Your task to perform on an android device: Open calendar and show me the third week of next month Image 0: 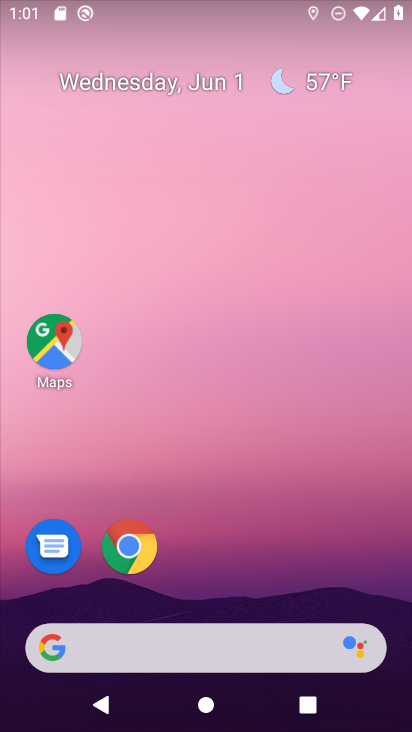
Step 0: click (49, 367)
Your task to perform on an android device: Open calendar and show me the third week of next month Image 1: 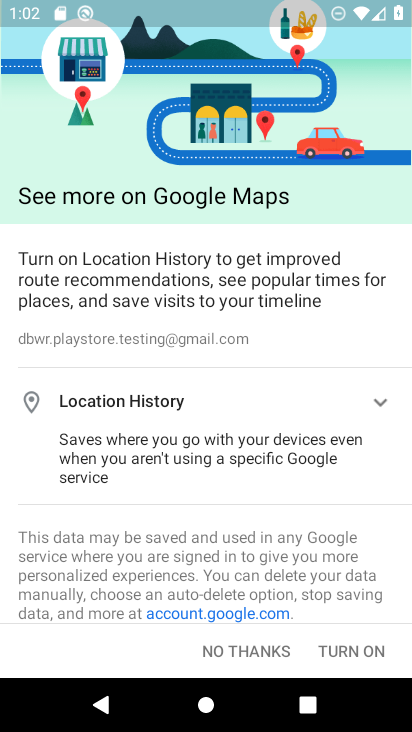
Step 1: click (349, 640)
Your task to perform on an android device: Open calendar and show me the third week of next month Image 2: 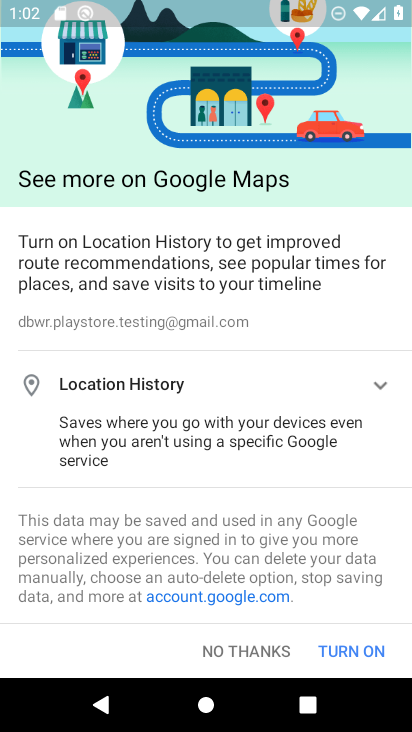
Step 2: press home button
Your task to perform on an android device: Open calendar and show me the third week of next month Image 3: 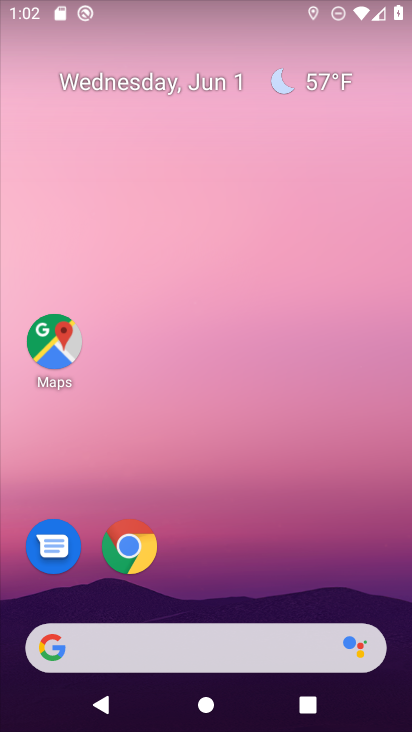
Step 3: drag from (200, 612) to (156, 78)
Your task to perform on an android device: Open calendar and show me the third week of next month Image 4: 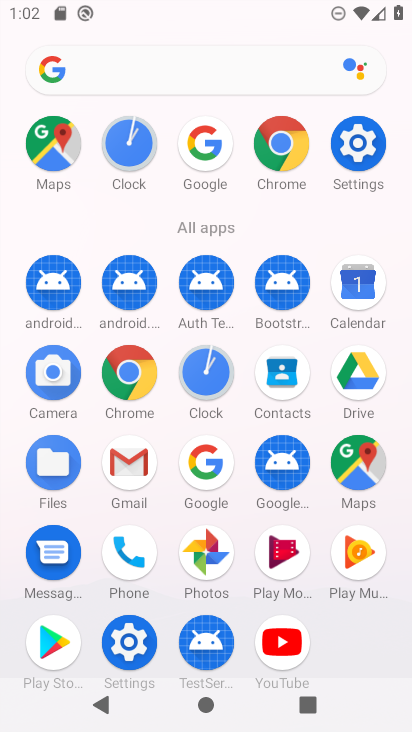
Step 4: click (359, 287)
Your task to perform on an android device: Open calendar and show me the third week of next month Image 5: 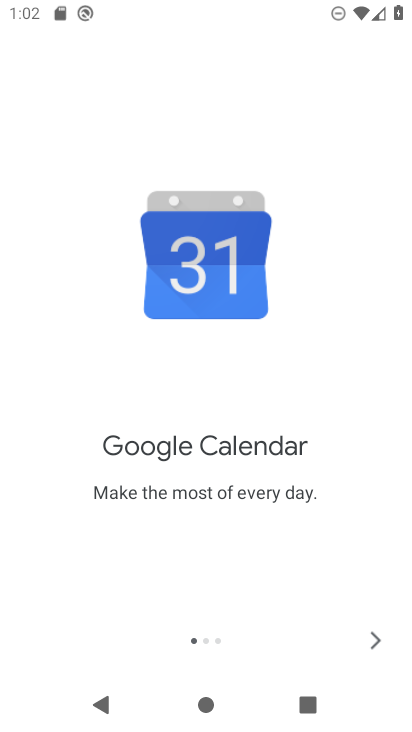
Step 5: click (370, 644)
Your task to perform on an android device: Open calendar and show me the third week of next month Image 6: 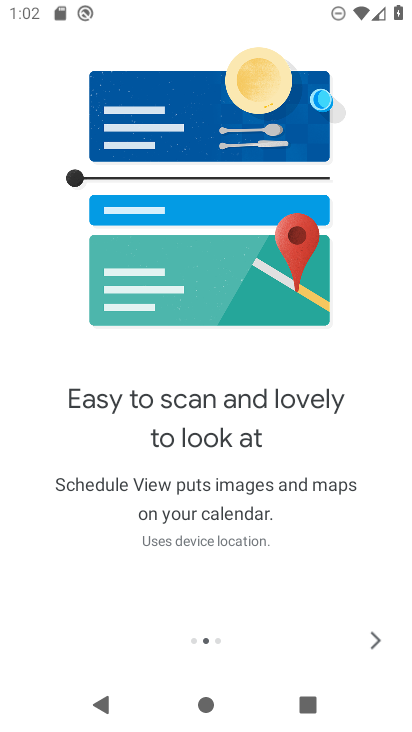
Step 6: click (370, 644)
Your task to perform on an android device: Open calendar and show me the third week of next month Image 7: 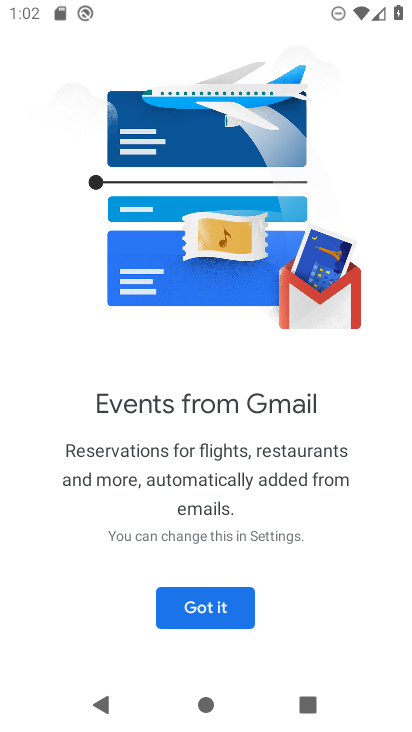
Step 7: click (203, 599)
Your task to perform on an android device: Open calendar and show me the third week of next month Image 8: 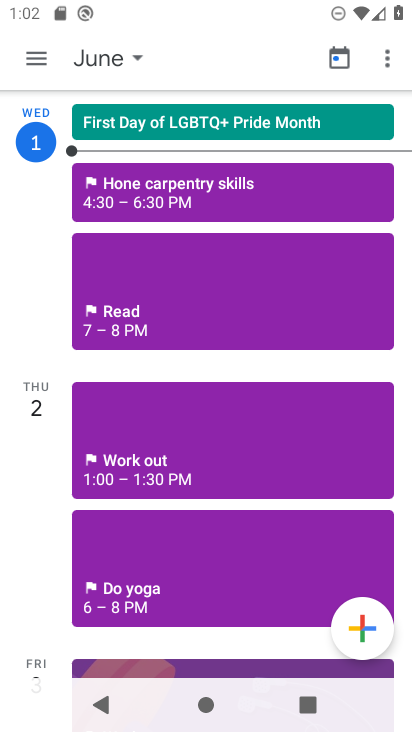
Step 8: click (36, 59)
Your task to perform on an android device: Open calendar and show me the third week of next month Image 9: 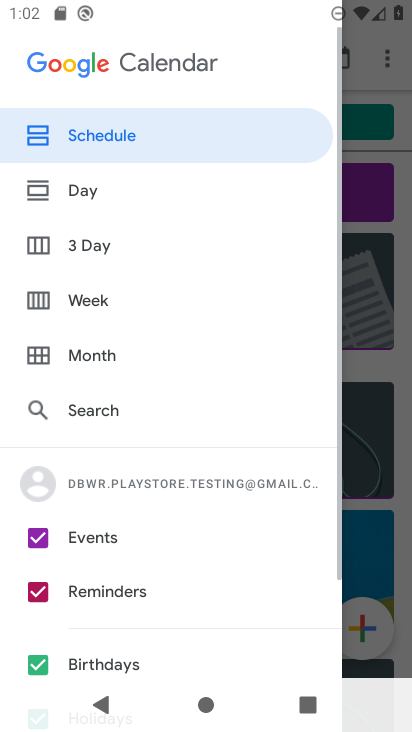
Step 9: click (72, 310)
Your task to perform on an android device: Open calendar and show me the third week of next month Image 10: 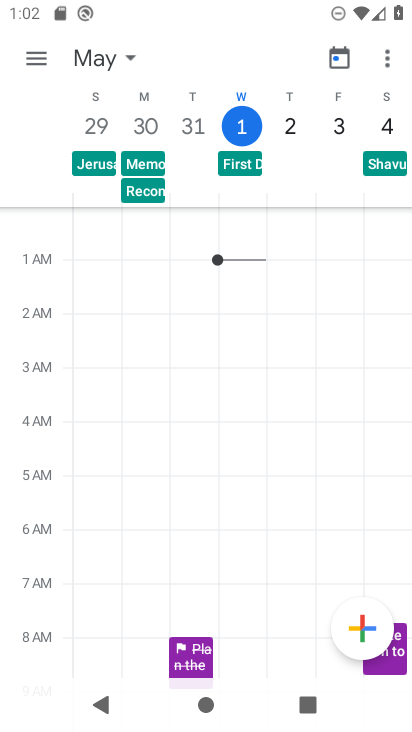
Step 10: task complete